Your task to perform on an android device: Show the shopping cart on walmart. Search for "bose quietcomfort 35" on walmart, select the first entry, and add it to the cart. Image 0: 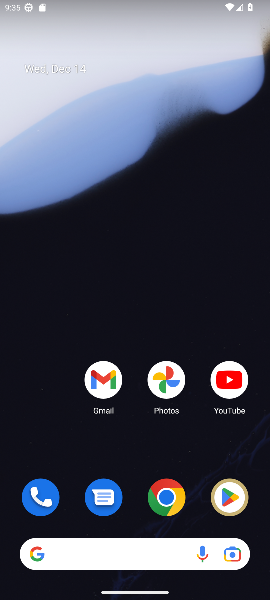
Step 0: click (158, 498)
Your task to perform on an android device: Show the shopping cart on walmart. Search for "bose quietcomfort 35" on walmart, select the first entry, and add it to the cart. Image 1: 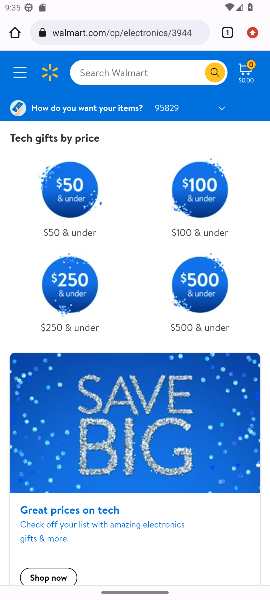
Step 1: click (100, 41)
Your task to perform on an android device: Show the shopping cart on walmart. Search for "bose quietcomfort 35" on walmart, select the first entry, and add it to the cart. Image 2: 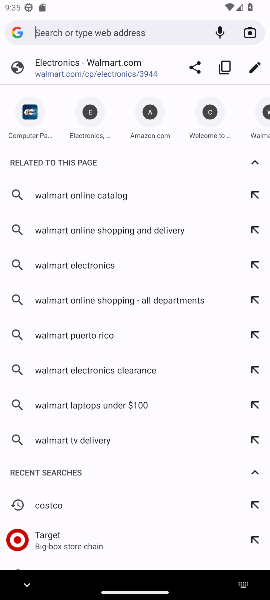
Step 2: type "walmart"
Your task to perform on an android device: Show the shopping cart on walmart. Search for "bose quietcomfort 35" on walmart, select the first entry, and add it to the cart. Image 3: 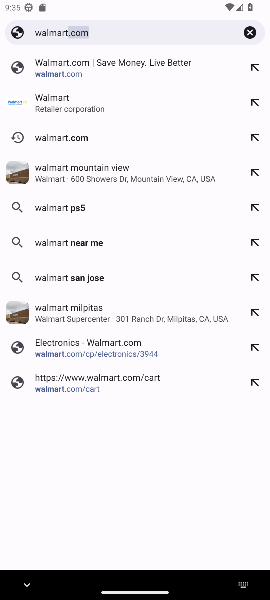
Step 3: click (79, 73)
Your task to perform on an android device: Show the shopping cart on walmart. Search for "bose quietcomfort 35" on walmart, select the first entry, and add it to the cart. Image 4: 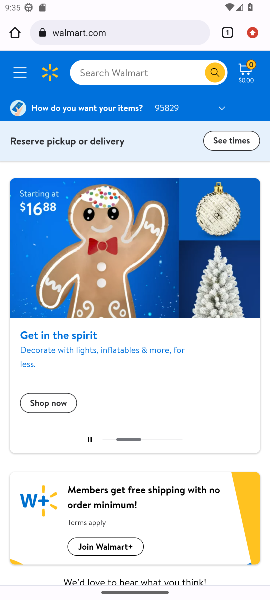
Step 4: click (244, 74)
Your task to perform on an android device: Show the shopping cart on walmart. Search for "bose quietcomfort 35" on walmart, select the first entry, and add it to the cart. Image 5: 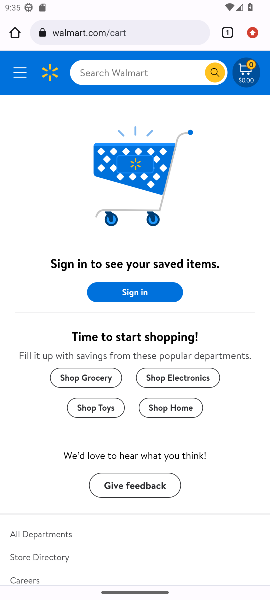
Step 5: click (118, 74)
Your task to perform on an android device: Show the shopping cart on walmart. Search for "bose quietcomfort 35" on walmart, select the first entry, and add it to the cart. Image 6: 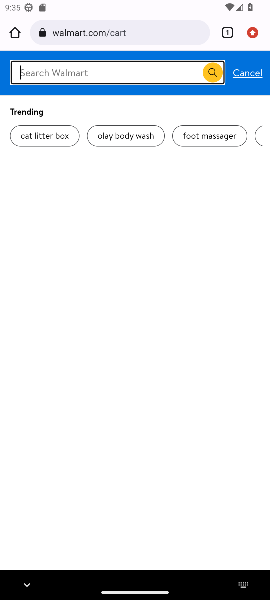
Step 6: type "bose quietcomfort 35"
Your task to perform on an android device: Show the shopping cart on walmart. Search for "bose quietcomfort 35" on walmart, select the first entry, and add it to the cart. Image 7: 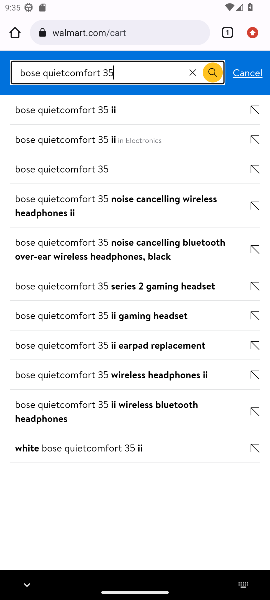
Step 7: click (211, 75)
Your task to perform on an android device: Show the shopping cart on walmart. Search for "bose quietcomfort 35" on walmart, select the first entry, and add it to the cart. Image 8: 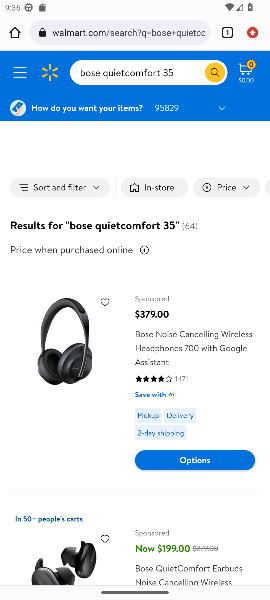
Step 8: drag from (193, 515) to (178, 279)
Your task to perform on an android device: Show the shopping cart on walmart. Search for "bose quietcomfort 35" on walmart, select the first entry, and add it to the cart. Image 9: 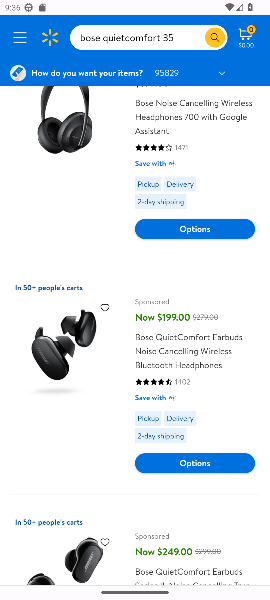
Step 9: click (183, 463)
Your task to perform on an android device: Show the shopping cart on walmart. Search for "bose quietcomfort 35" on walmart, select the first entry, and add it to the cart. Image 10: 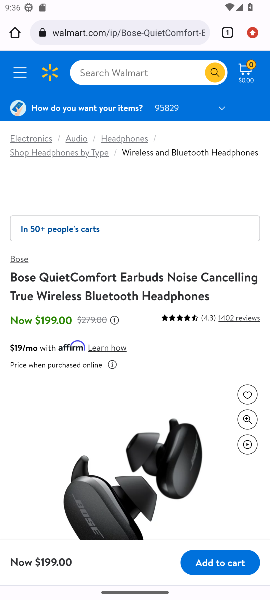
Step 10: click (215, 569)
Your task to perform on an android device: Show the shopping cart on walmart. Search for "bose quietcomfort 35" on walmart, select the first entry, and add it to the cart. Image 11: 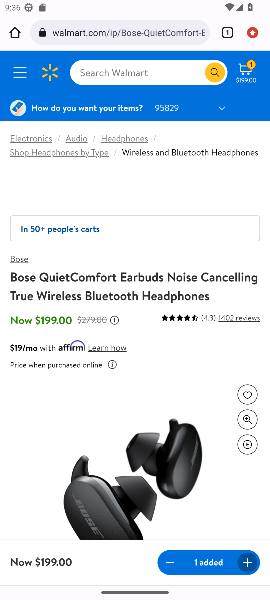
Step 11: task complete